Your task to perform on an android device: manage bookmarks in the chrome app Image 0: 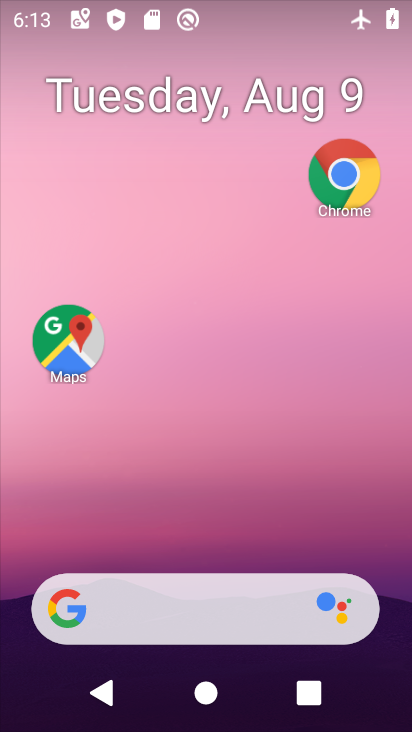
Step 0: click (344, 180)
Your task to perform on an android device: manage bookmarks in the chrome app Image 1: 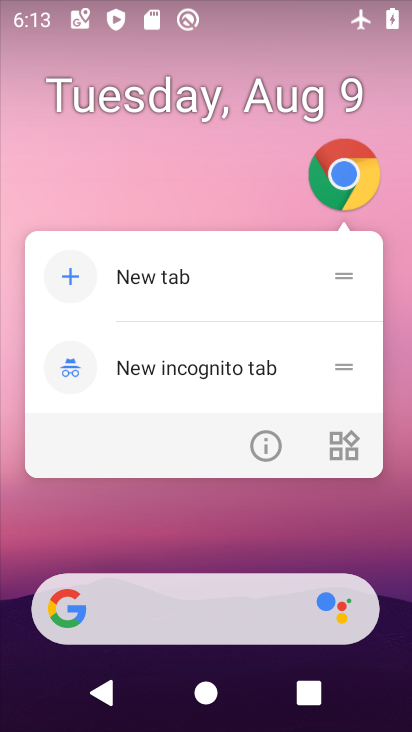
Step 1: click (278, 437)
Your task to perform on an android device: manage bookmarks in the chrome app Image 2: 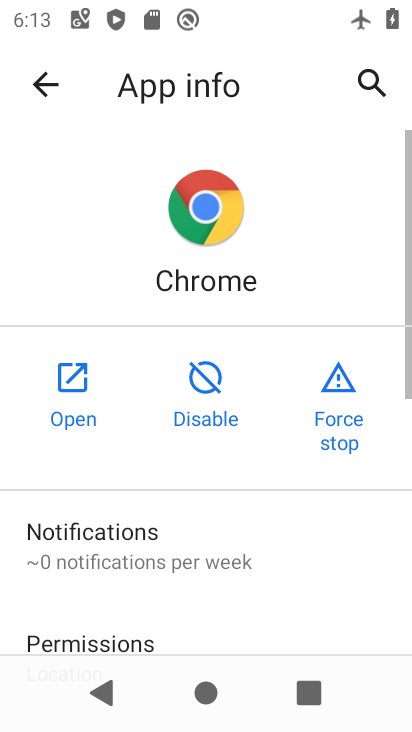
Step 2: click (78, 363)
Your task to perform on an android device: manage bookmarks in the chrome app Image 3: 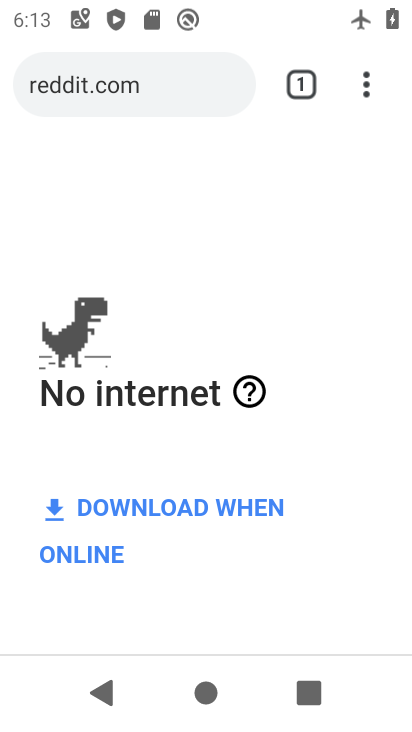
Step 3: task complete